Your task to perform on an android device: open a new tab in the chrome app Image 0: 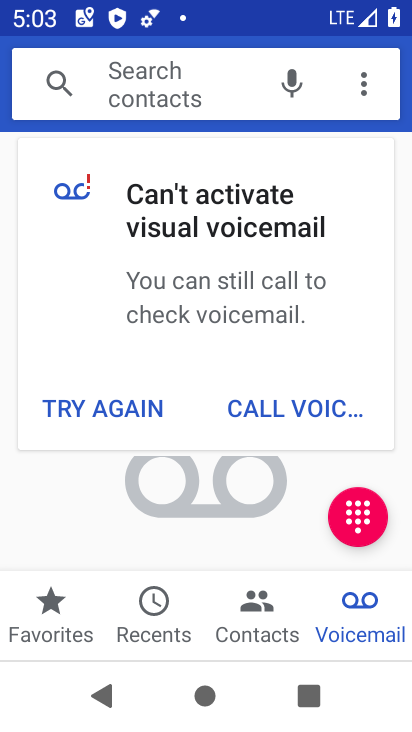
Step 0: press home button
Your task to perform on an android device: open a new tab in the chrome app Image 1: 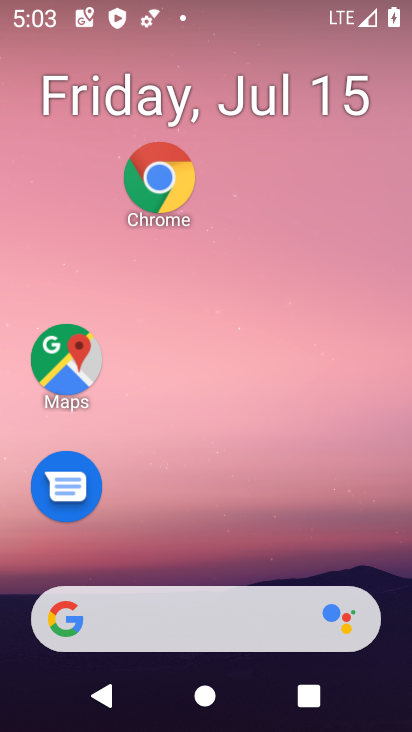
Step 1: click (152, 185)
Your task to perform on an android device: open a new tab in the chrome app Image 2: 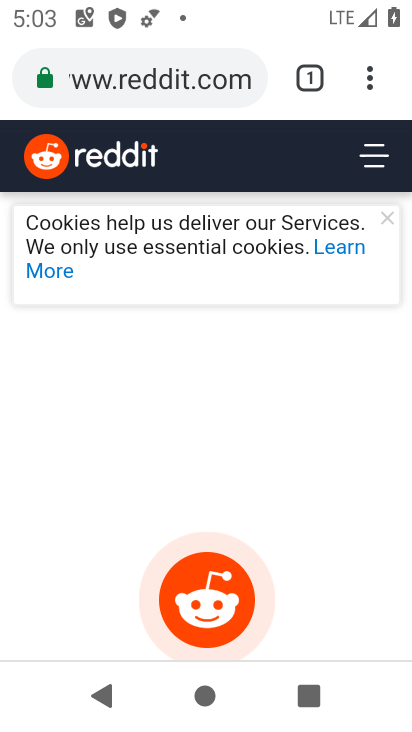
Step 2: click (318, 76)
Your task to perform on an android device: open a new tab in the chrome app Image 3: 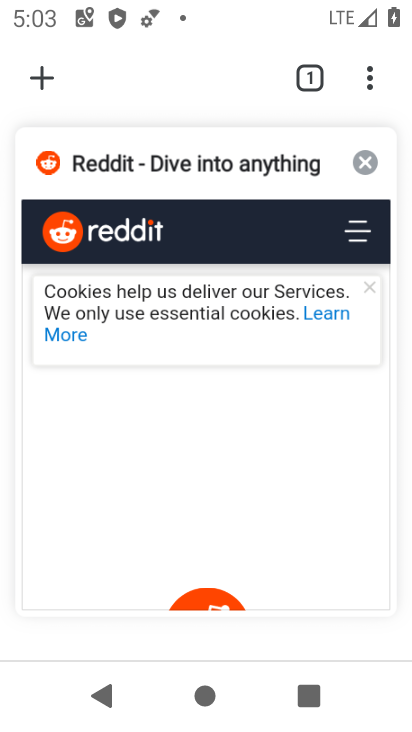
Step 3: click (34, 81)
Your task to perform on an android device: open a new tab in the chrome app Image 4: 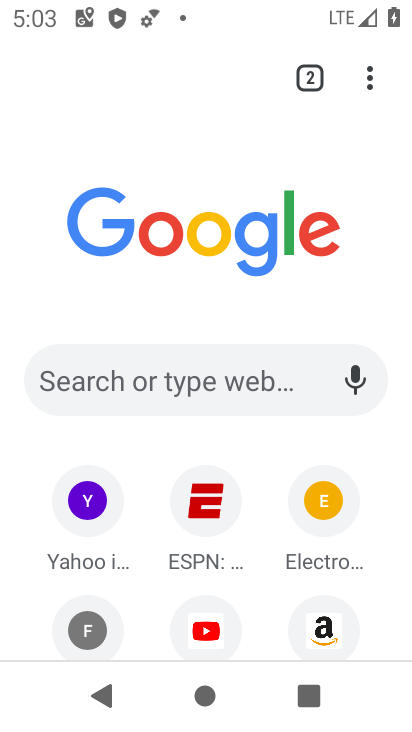
Step 4: task complete